Your task to perform on an android device: toggle notifications settings in the gmail app Image 0: 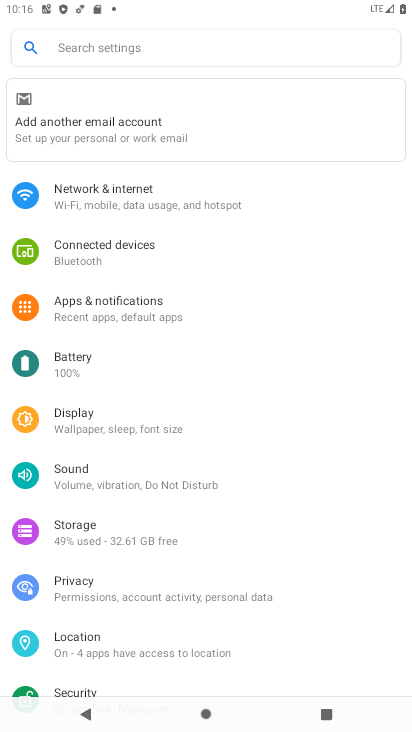
Step 0: press home button
Your task to perform on an android device: toggle notifications settings in the gmail app Image 1: 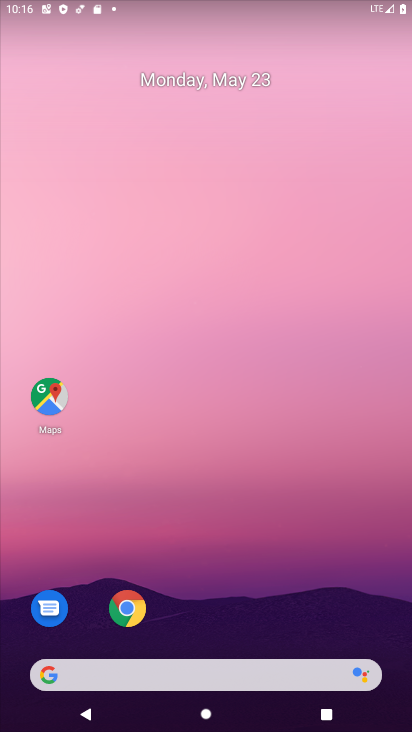
Step 1: drag from (184, 658) to (290, 145)
Your task to perform on an android device: toggle notifications settings in the gmail app Image 2: 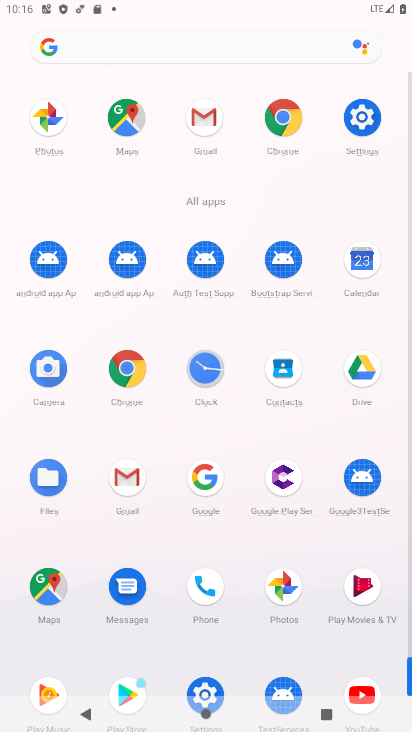
Step 2: click (114, 484)
Your task to perform on an android device: toggle notifications settings in the gmail app Image 3: 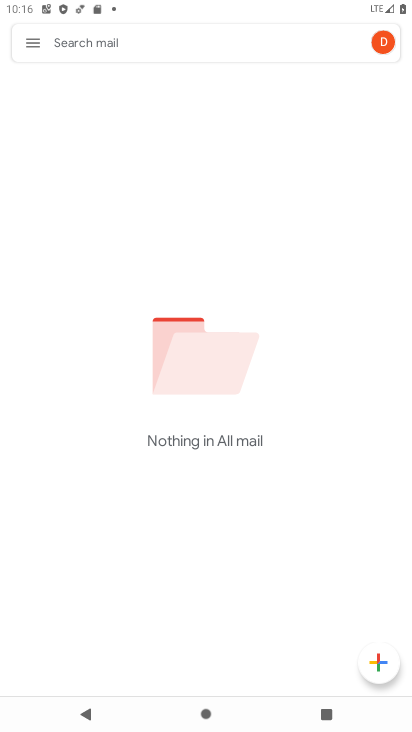
Step 3: click (29, 34)
Your task to perform on an android device: toggle notifications settings in the gmail app Image 4: 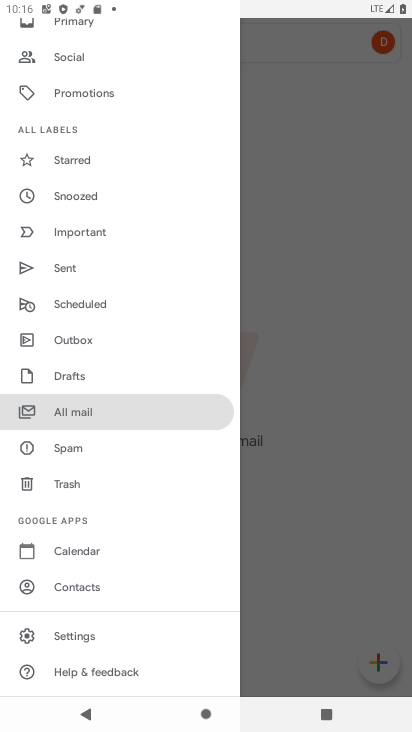
Step 4: click (104, 631)
Your task to perform on an android device: toggle notifications settings in the gmail app Image 5: 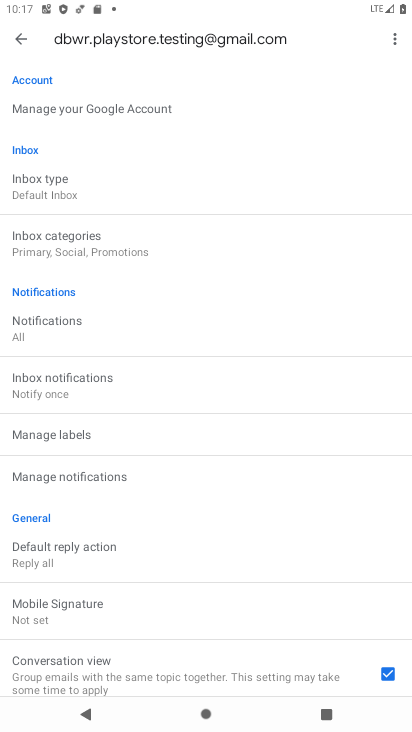
Step 5: click (113, 487)
Your task to perform on an android device: toggle notifications settings in the gmail app Image 6: 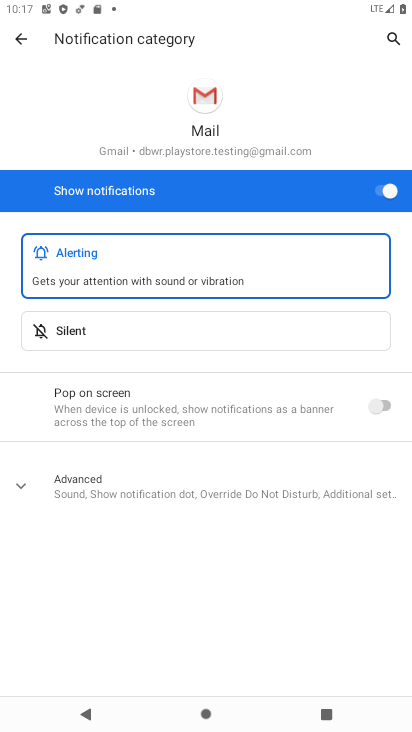
Step 6: click (383, 192)
Your task to perform on an android device: toggle notifications settings in the gmail app Image 7: 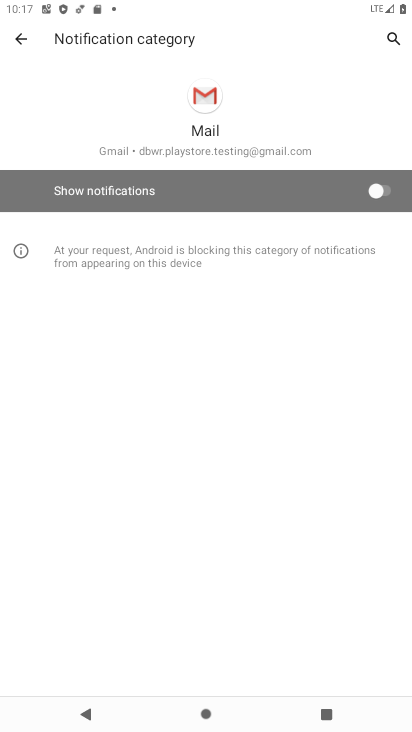
Step 7: task complete